Your task to perform on an android device: See recent photos Image 0: 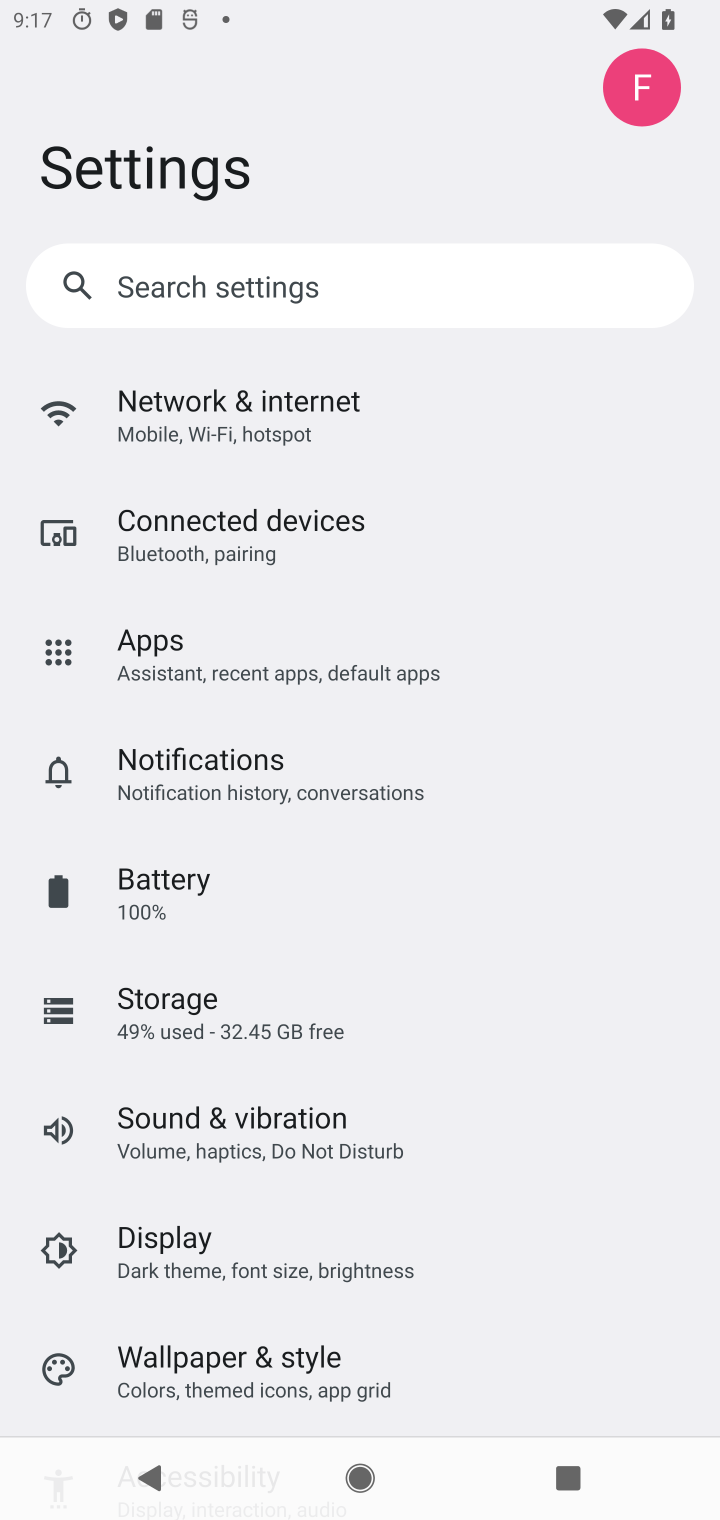
Step 0: press home button
Your task to perform on an android device: See recent photos Image 1: 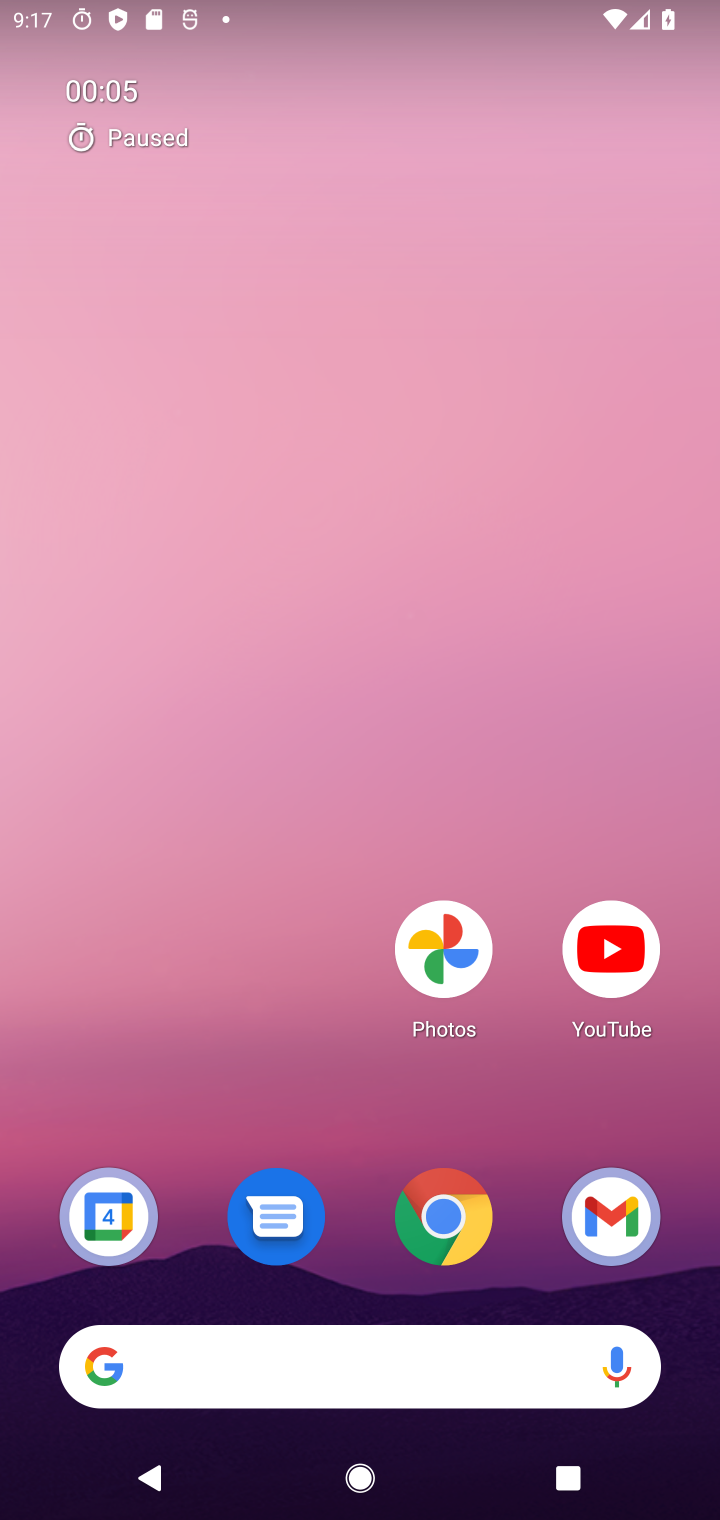
Step 1: drag from (358, 1292) to (379, 57)
Your task to perform on an android device: See recent photos Image 2: 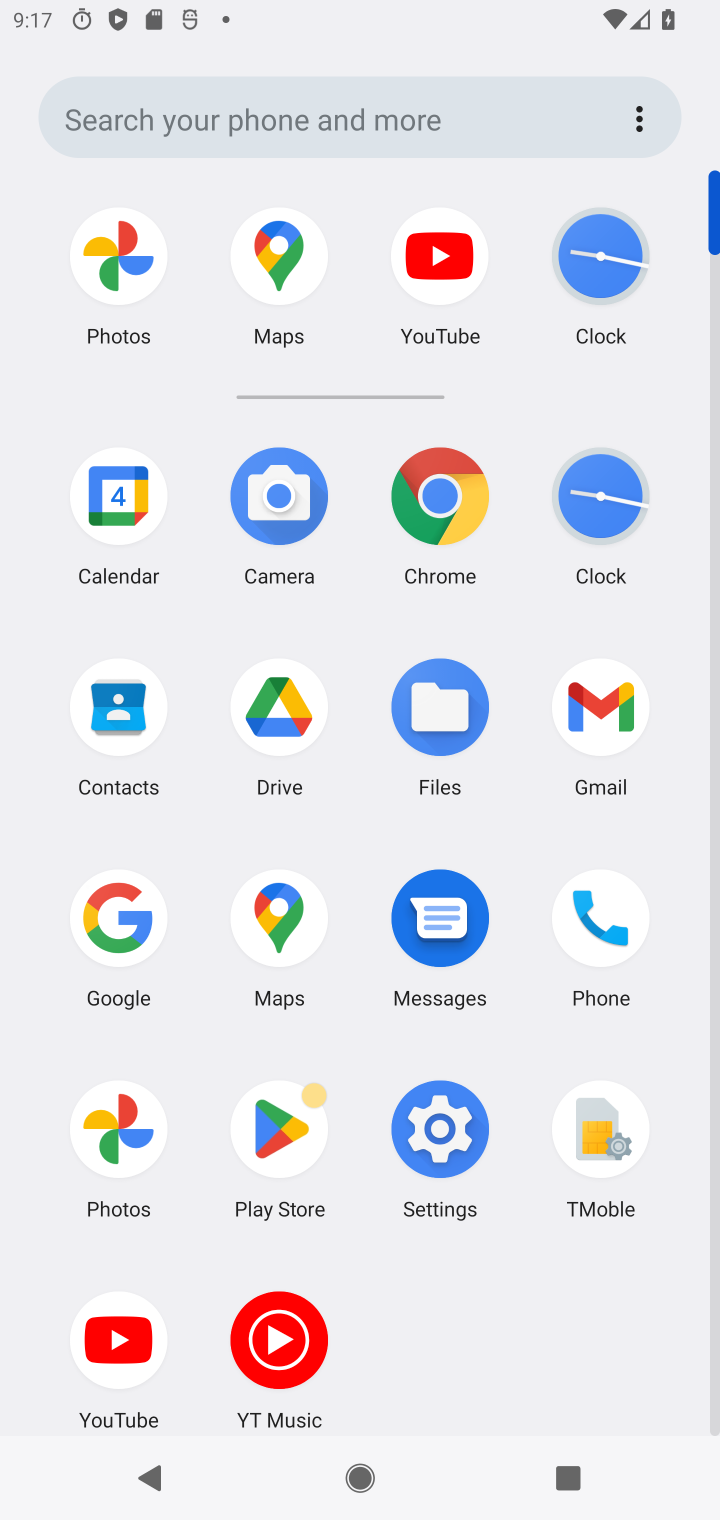
Step 2: click (115, 1155)
Your task to perform on an android device: See recent photos Image 3: 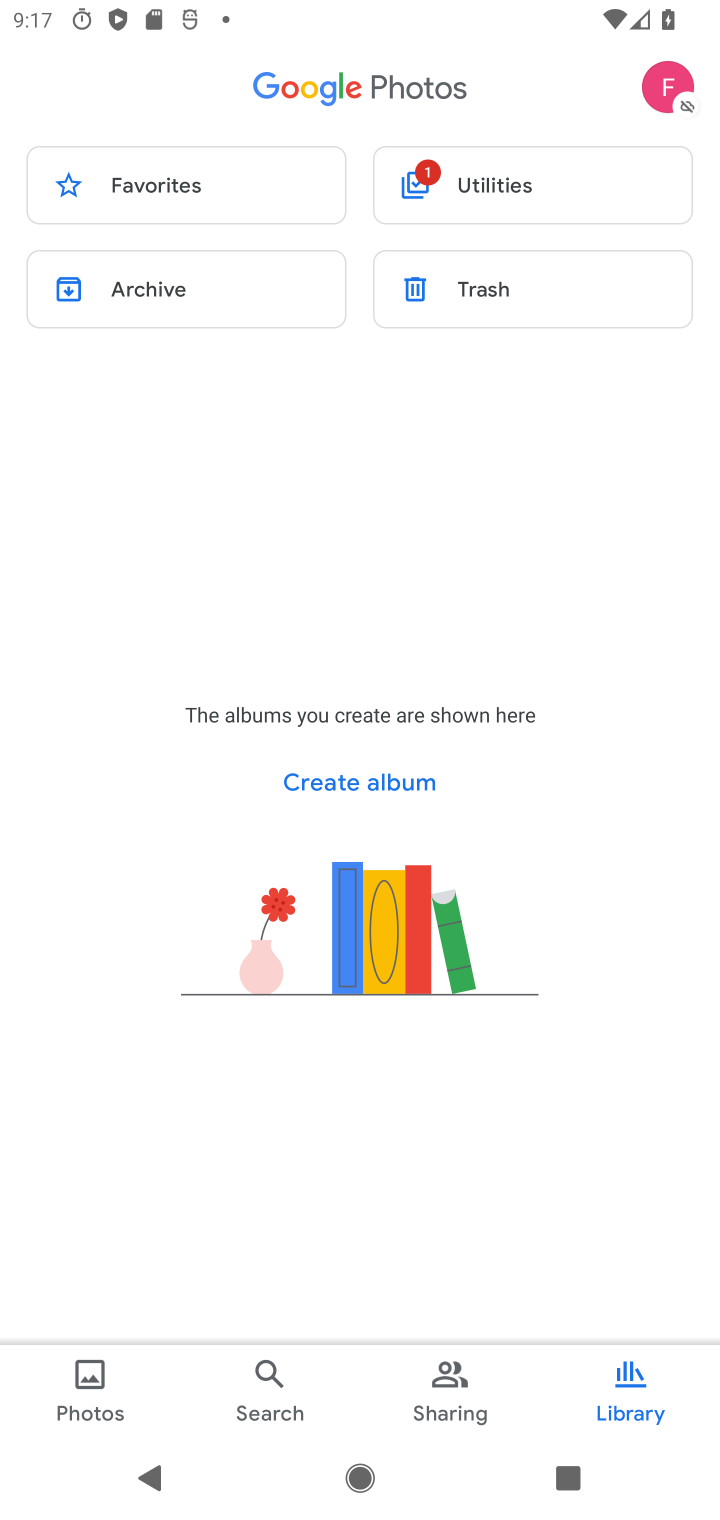
Step 3: click (89, 1381)
Your task to perform on an android device: See recent photos Image 4: 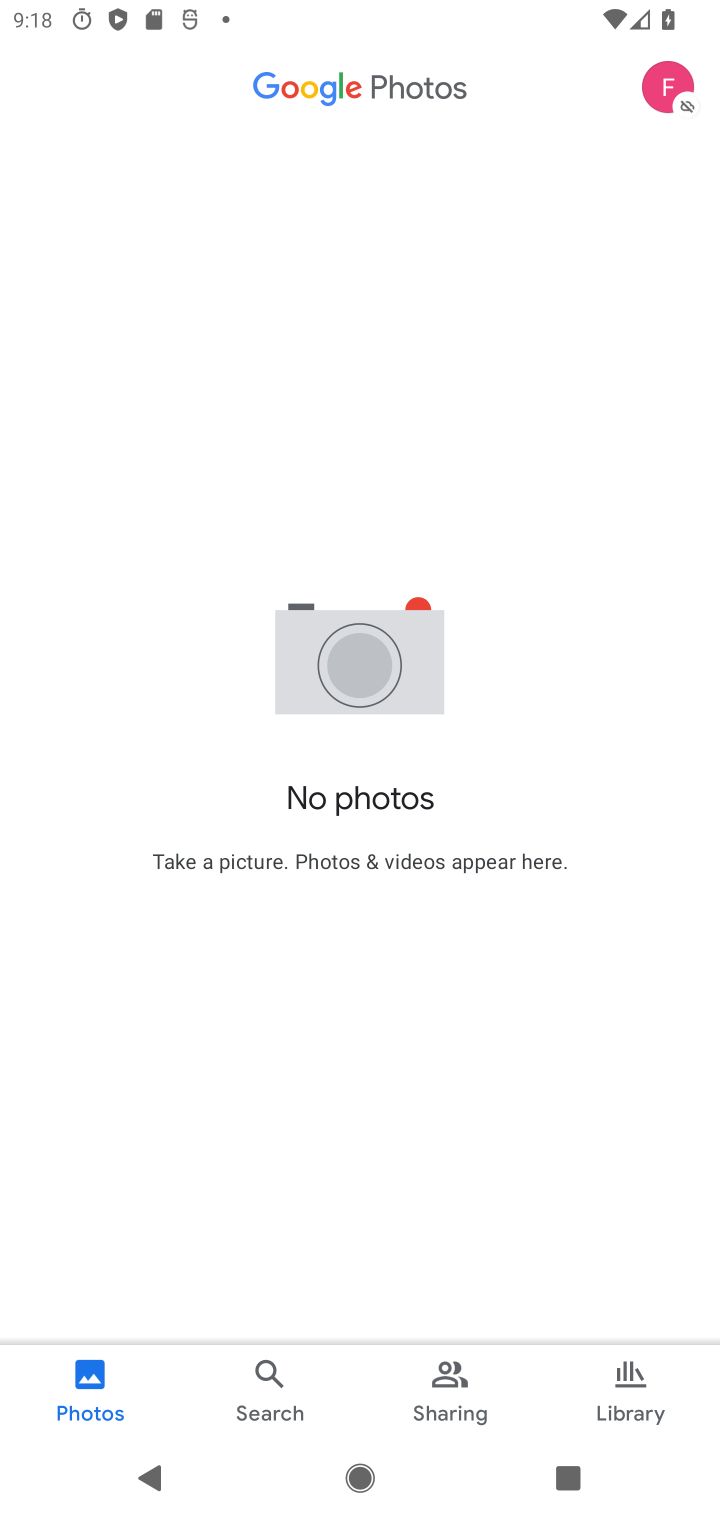
Step 4: task complete